Your task to perform on an android device: open app "Indeed Job Search" Image 0: 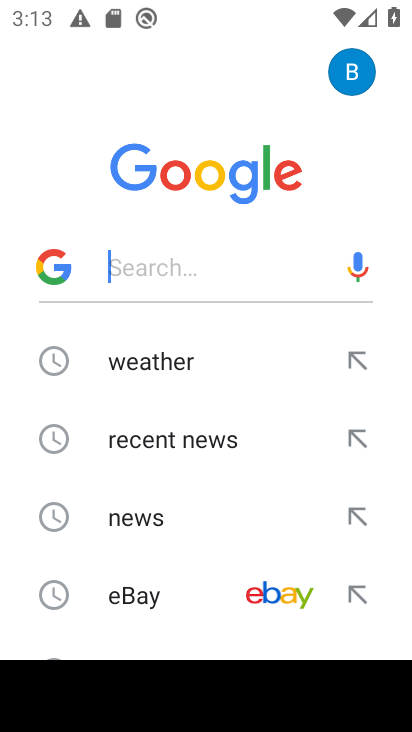
Step 0: press home button
Your task to perform on an android device: open app "Indeed Job Search" Image 1: 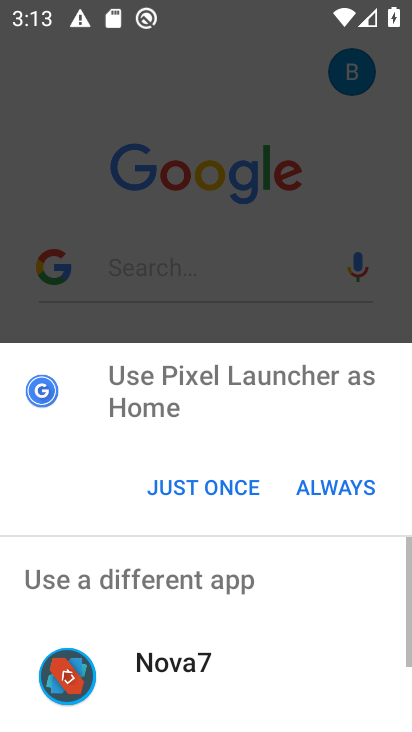
Step 1: click (198, 478)
Your task to perform on an android device: open app "Indeed Job Search" Image 2: 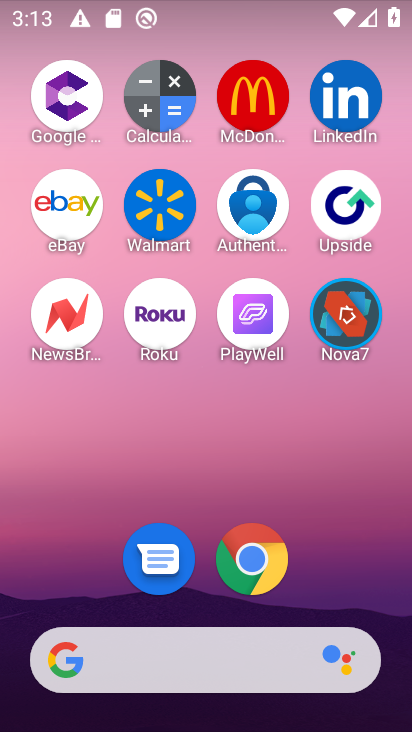
Step 2: drag from (162, 599) to (219, 180)
Your task to perform on an android device: open app "Indeed Job Search" Image 3: 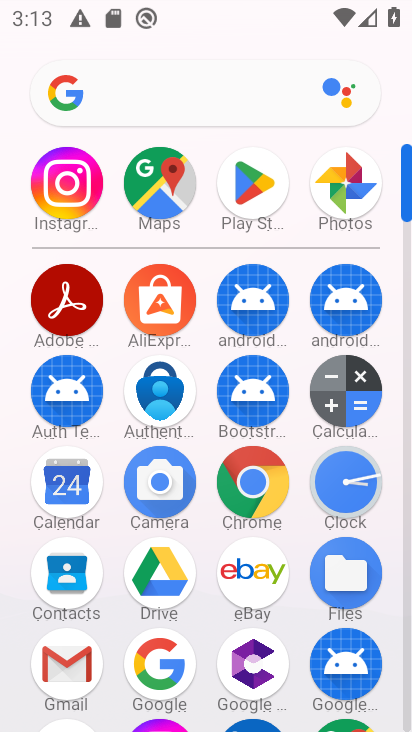
Step 3: click (258, 182)
Your task to perform on an android device: open app "Indeed Job Search" Image 4: 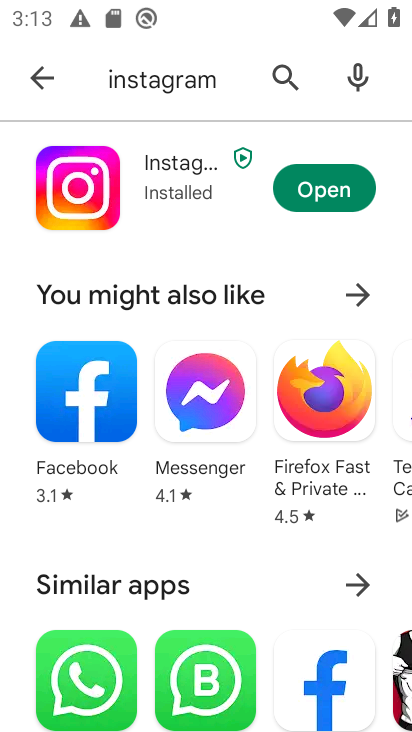
Step 4: click (283, 76)
Your task to perform on an android device: open app "Indeed Job Search" Image 5: 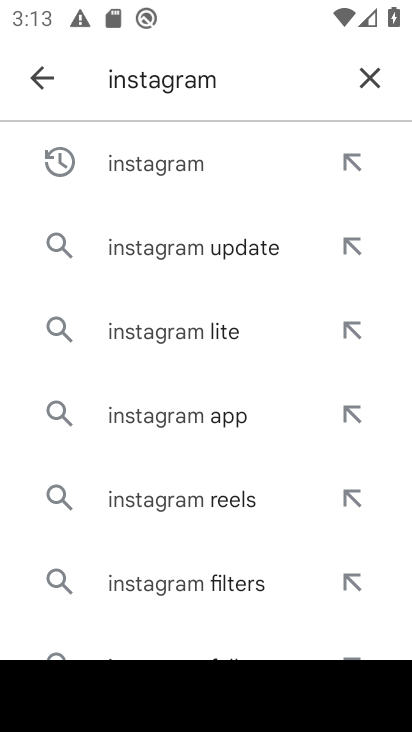
Step 5: type "Indeed Job Search"
Your task to perform on an android device: open app "Indeed Job Search" Image 6: 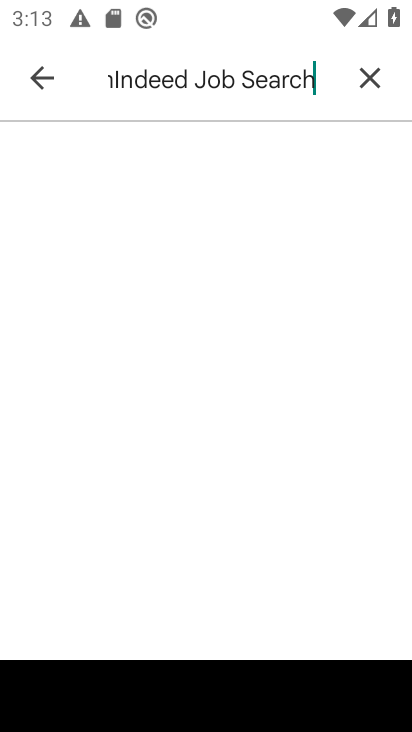
Step 6: click (369, 70)
Your task to perform on an android device: open app "Indeed Job Search" Image 7: 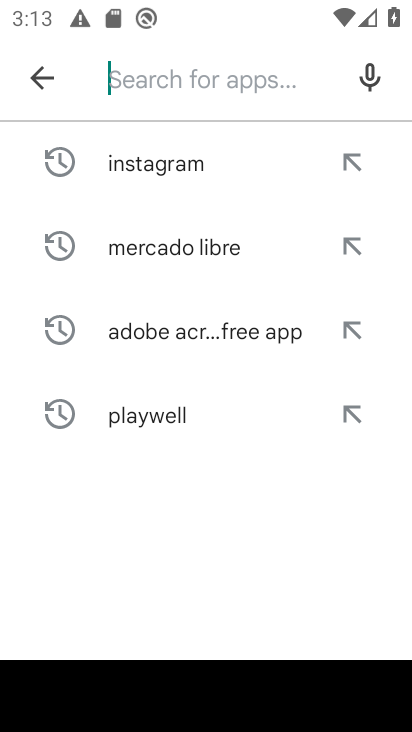
Step 7: type "Indeed Job Search"
Your task to perform on an android device: open app "Indeed Job Search" Image 8: 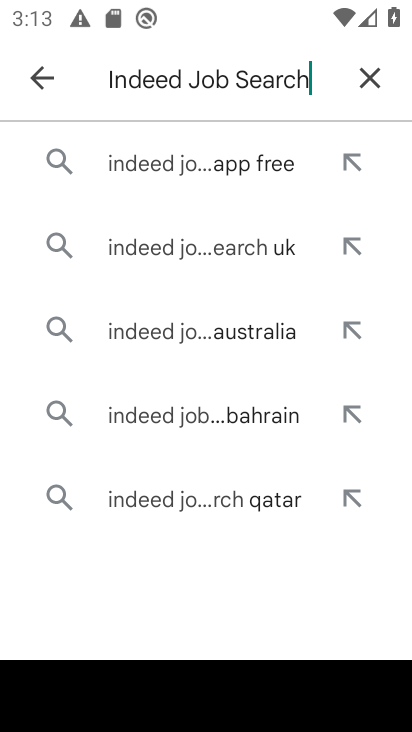
Step 8: click (194, 155)
Your task to perform on an android device: open app "Indeed Job Search" Image 9: 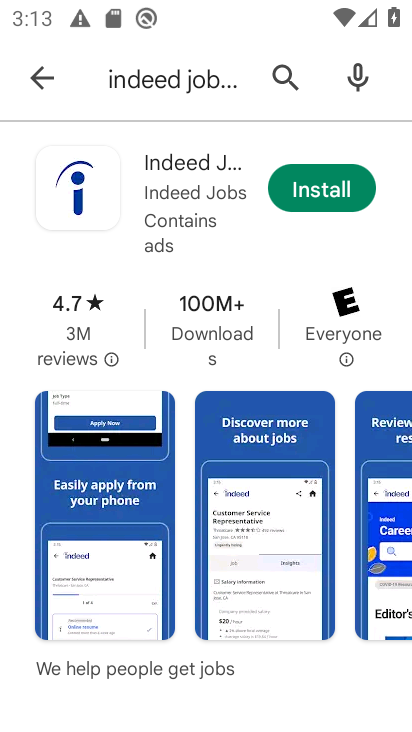
Step 9: click (318, 188)
Your task to perform on an android device: open app "Indeed Job Search" Image 10: 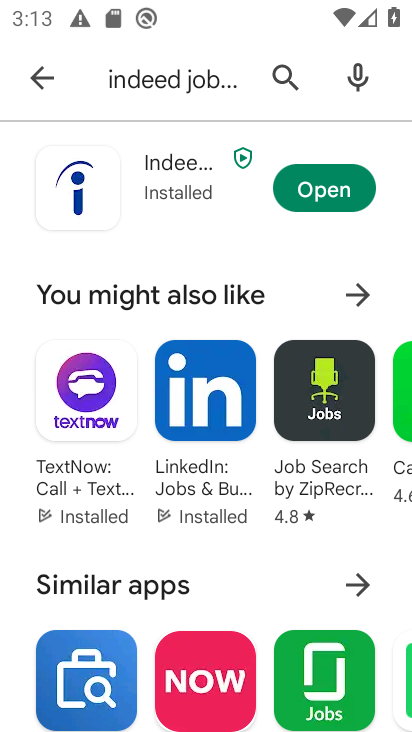
Step 10: click (303, 190)
Your task to perform on an android device: open app "Indeed Job Search" Image 11: 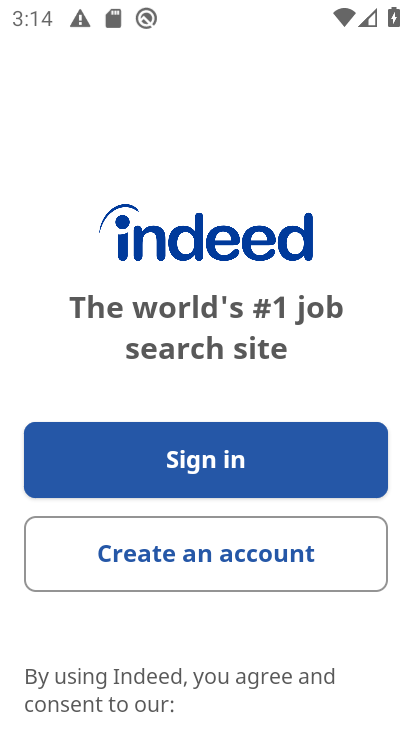
Step 11: task complete